Your task to perform on an android device: open app "TextNow: Call + Text Unlimited" Image 0: 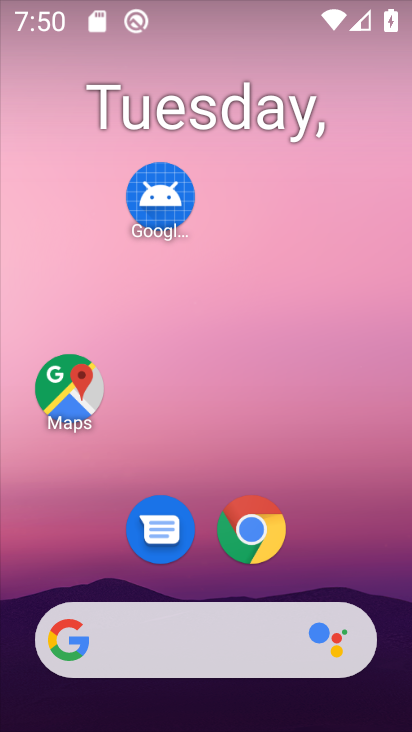
Step 0: drag from (326, 561) to (157, 61)
Your task to perform on an android device: open app "TextNow: Call + Text Unlimited" Image 1: 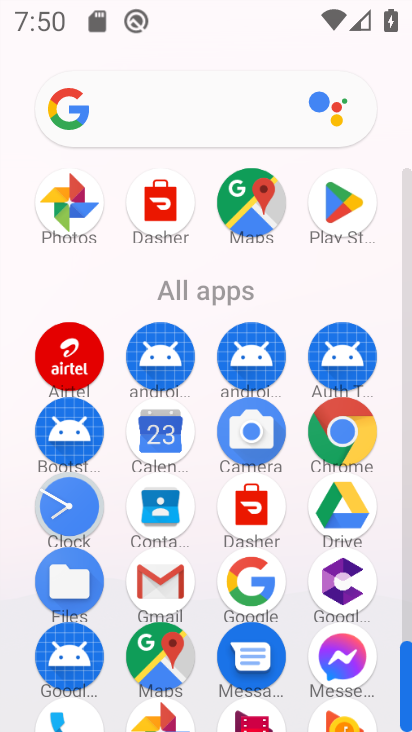
Step 1: click (344, 194)
Your task to perform on an android device: open app "TextNow: Call + Text Unlimited" Image 2: 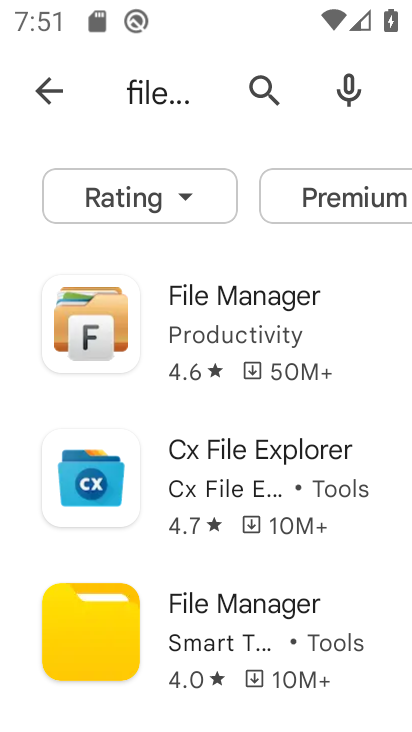
Step 2: click (274, 83)
Your task to perform on an android device: open app "TextNow: Call + Text Unlimited" Image 3: 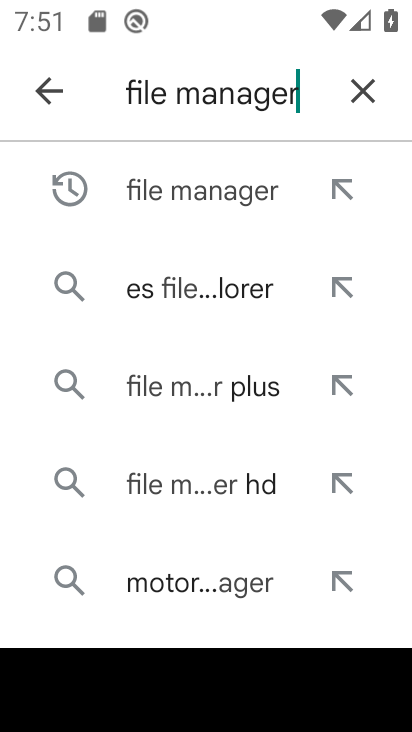
Step 3: click (363, 101)
Your task to perform on an android device: open app "TextNow: Call + Text Unlimited" Image 4: 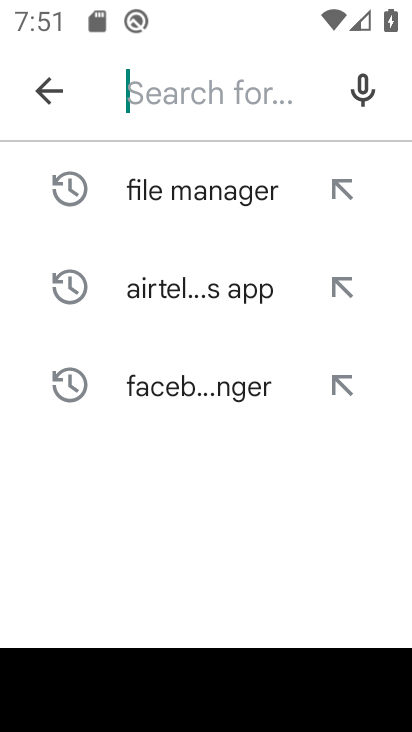
Step 4: type "TextNow: Call + Text Unlimited"
Your task to perform on an android device: open app "TextNow: Call + Text Unlimited" Image 5: 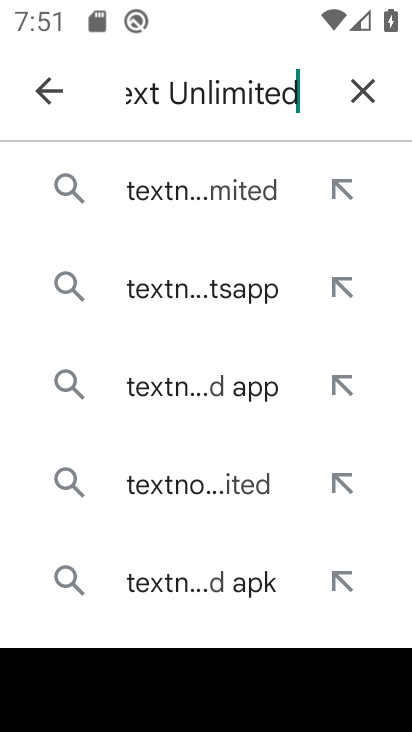
Step 5: click (258, 199)
Your task to perform on an android device: open app "TextNow: Call + Text Unlimited" Image 6: 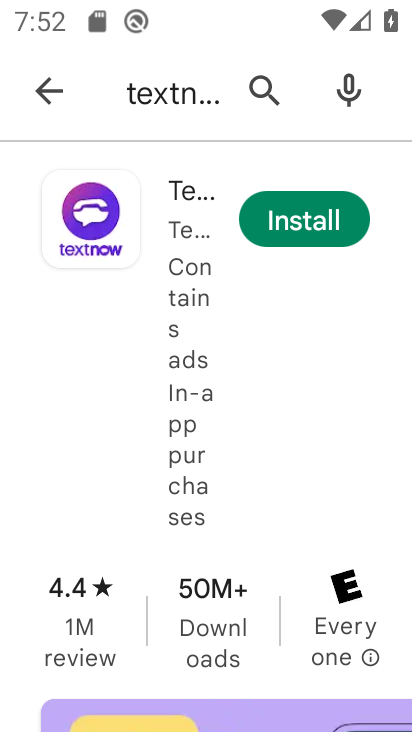
Step 6: task complete